Your task to perform on an android device: Check the news Image 0: 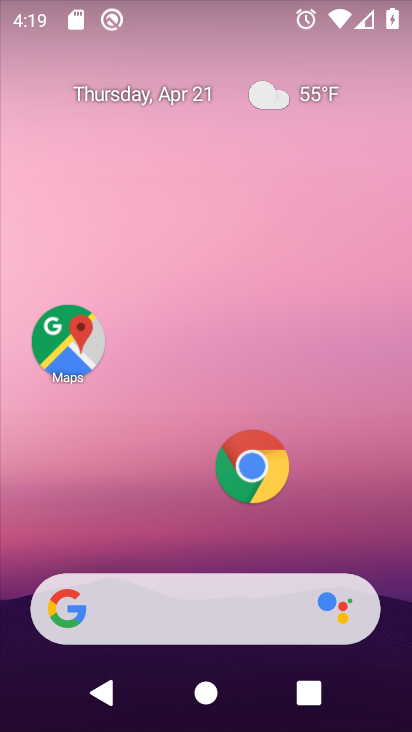
Step 0: click (304, 20)
Your task to perform on an android device: Check the news Image 1: 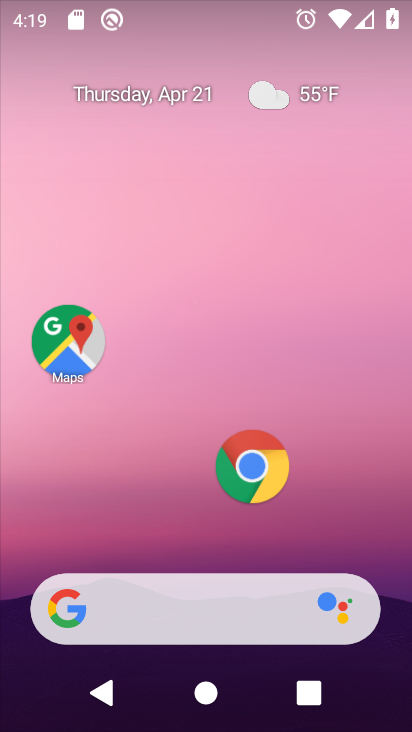
Step 1: drag from (157, 556) to (225, 6)
Your task to perform on an android device: Check the news Image 2: 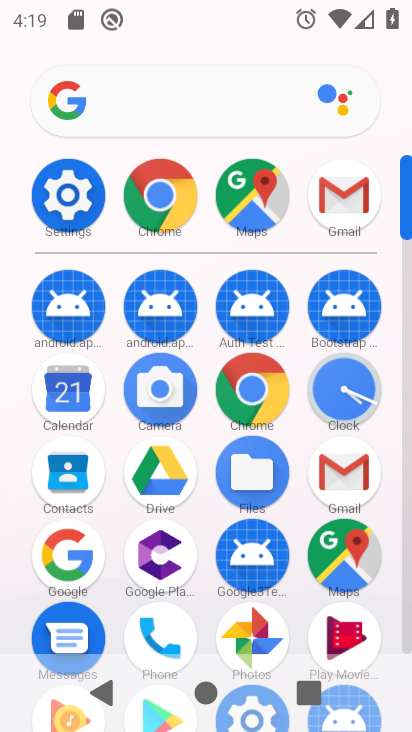
Step 2: click (77, 552)
Your task to perform on an android device: Check the news Image 3: 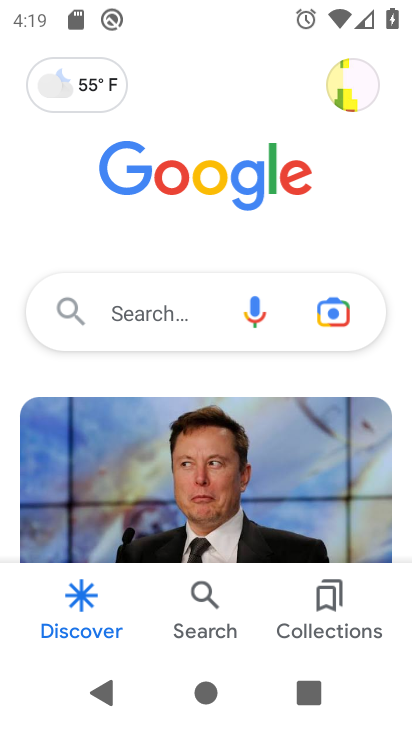
Step 3: click (146, 347)
Your task to perform on an android device: Check the news Image 4: 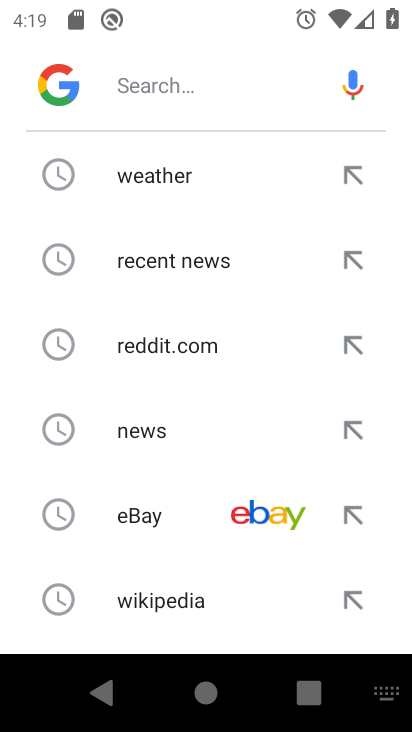
Step 4: click (163, 434)
Your task to perform on an android device: Check the news Image 5: 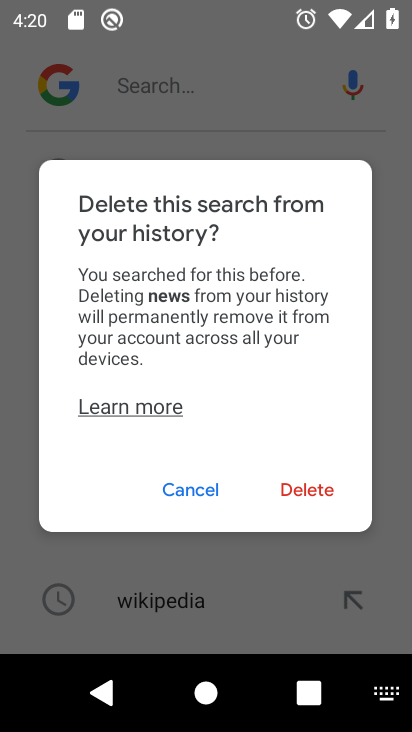
Step 5: click (177, 481)
Your task to perform on an android device: Check the news Image 6: 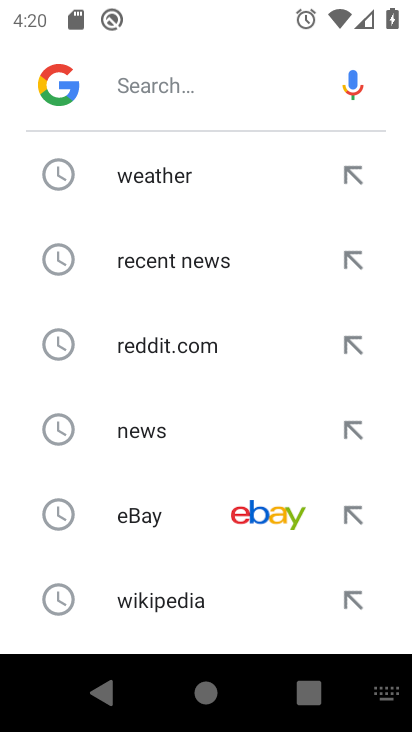
Step 6: click (144, 424)
Your task to perform on an android device: Check the news Image 7: 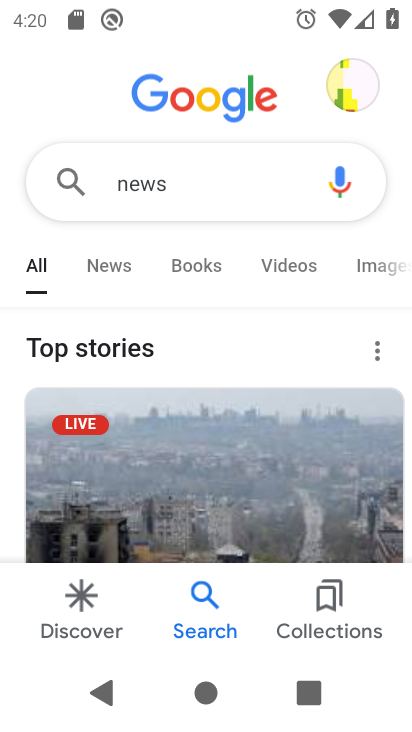
Step 7: task complete